Your task to perform on an android device: Check the news Image 0: 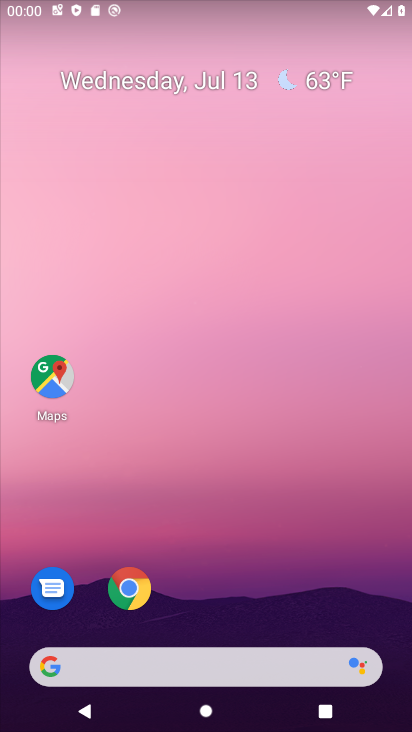
Step 0: drag from (34, 710) to (212, 131)
Your task to perform on an android device: Check the news Image 1: 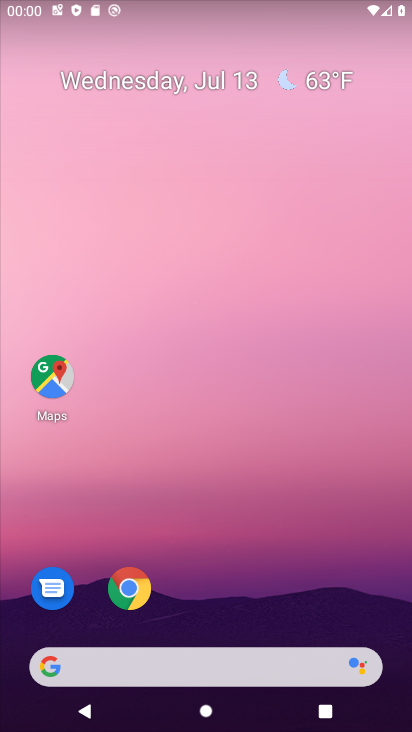
Step 1: drag from (85, 448) to (141, 19)
Your task to perform on an android device: Check the news Image 2: 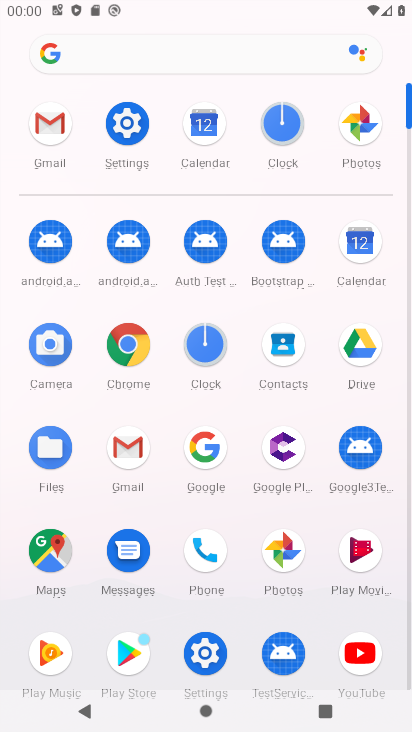
Step 2: click (127, 65)
Your task to perform on an android device: Check the news Image 3: 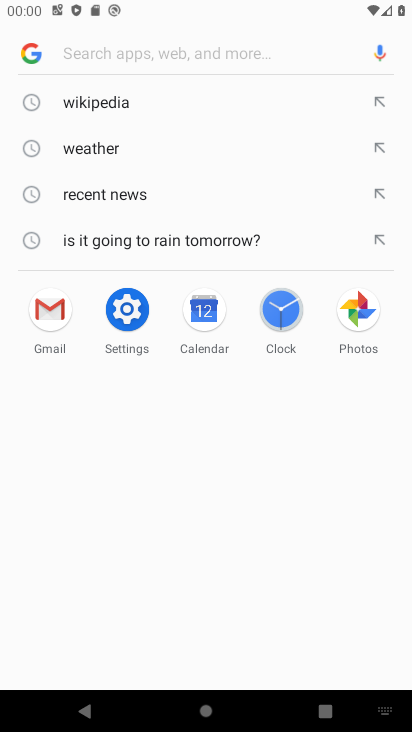
Step 3: type "Check the news"
Your task to perform on an android device: Check the news Image 4: 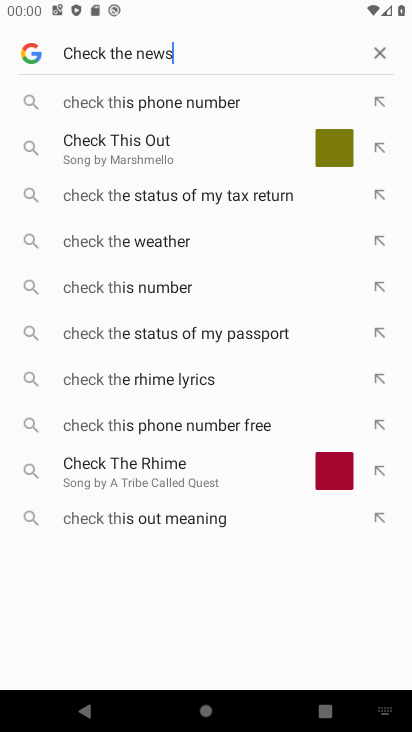
Step 4: type ""
Your task to perform on an android device: Check the news Image 5: 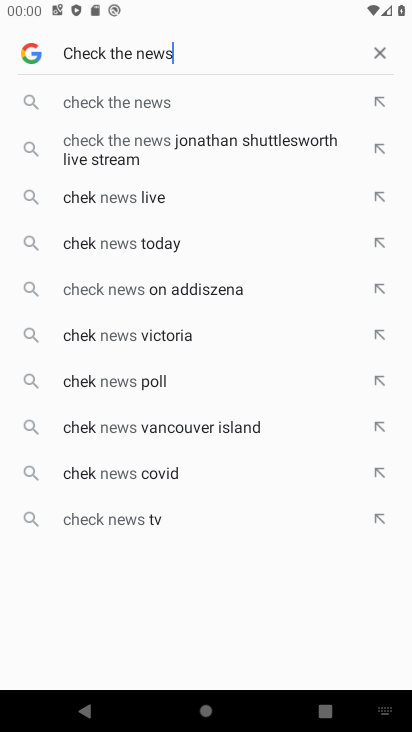
Step 5: click (113, 103)
Your task to perform on an android device: Check the news Image 6: 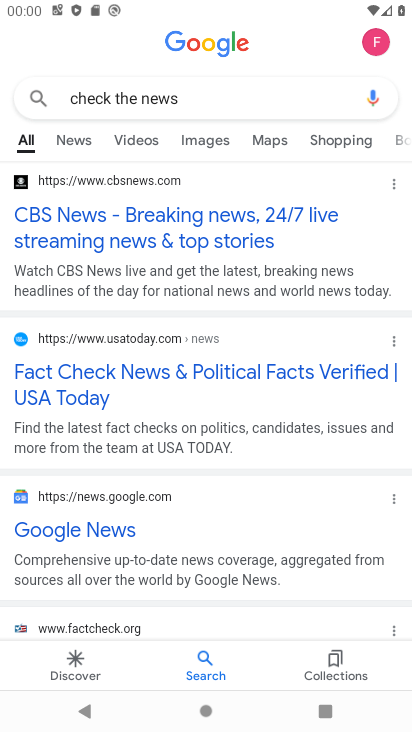
Step 6: task complete